Your task to perform on an android device: turn off notifications settings in the gmail app Image 0: 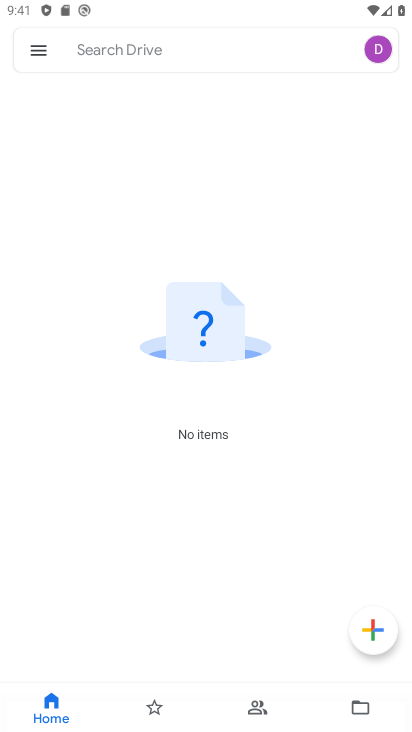
Step 0: press home button
Your task to perform on an android device: turn off notifications settings in the gmail app Image 1: 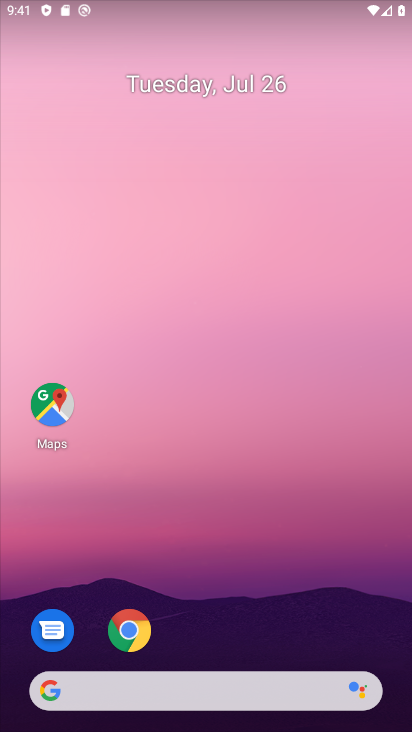
Step 1: drag from (341, 533) to (342, 87)
Your task to perform on an android device: turn off notifications settings in the gmail app Image 2: 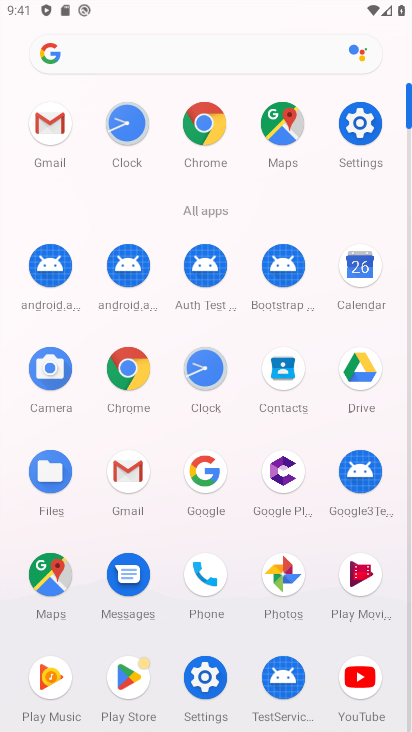
Step 2: click (125, 469)
Your task to perform on an android device: turn off notifications settings in the gmail app Image 3: 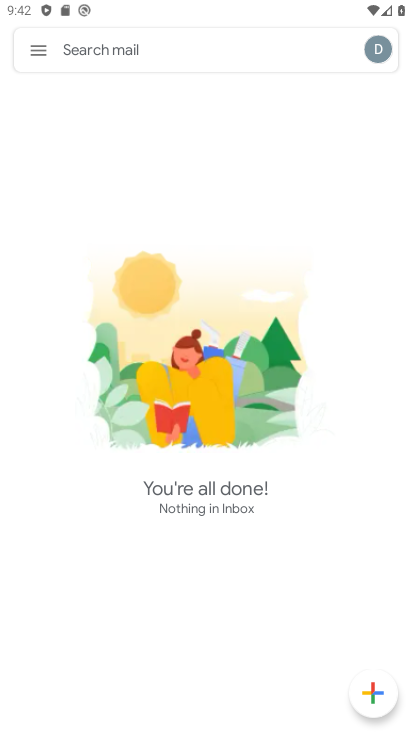
Step 3: click (38, 56)
Your task to perform on an android device: turn off notifications settings in the gmail app Image 4: 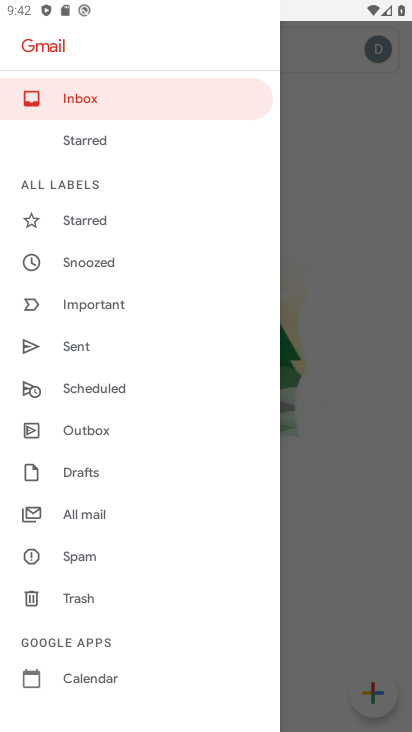
Step 4: drag from (133, 691) to (166, 374)
Your task to perform on an android device: turn off notifications settings in the gmail app Image 5: 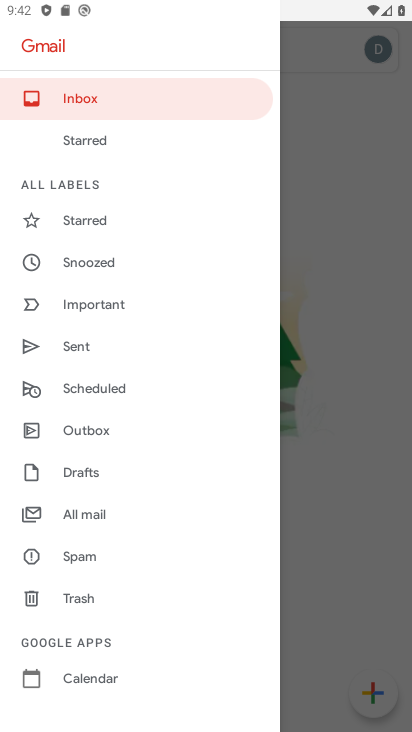
Step 5: drag from (186, 657) to (200, 361)
Your task to perform on an android device: turn off notifications settings in the gmail app Image 6: 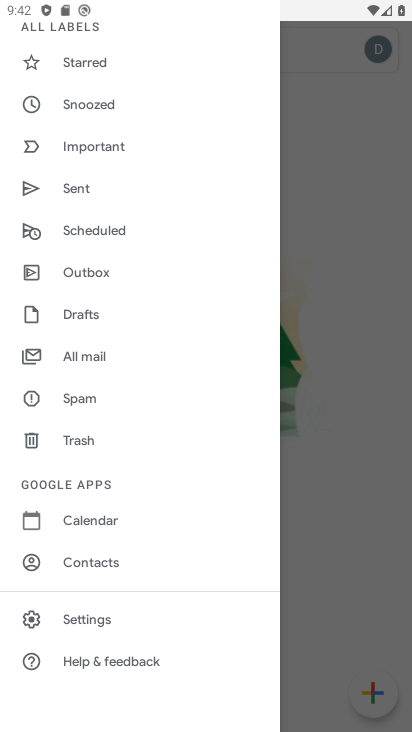
Step 6: click (81, 620)
Your task to perform on an android device: turn off notifications settings in the gmail app Image 7: 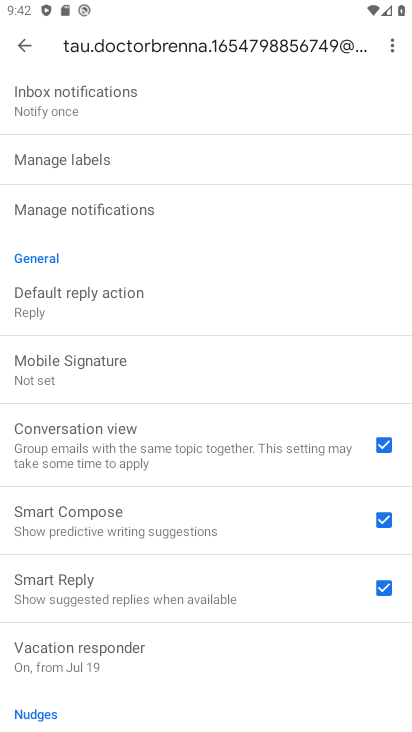
Step 7: click (83, 213)
Your task to perform on an android device: turn off notifications settings in the gmail app Image 8: 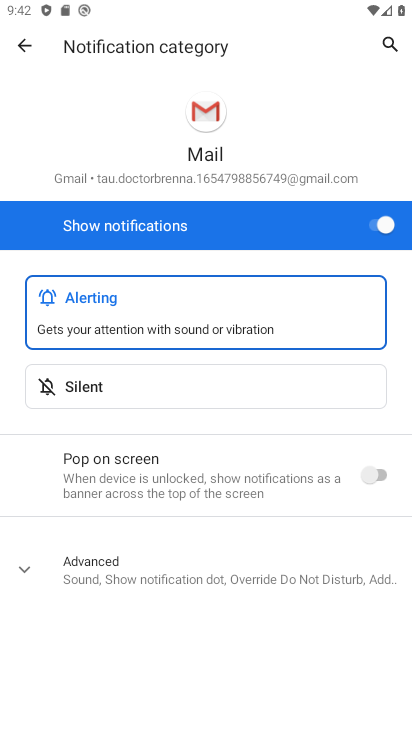
Step 8: click (21, 567)
Your task to perform on an android device: turn off notifications settings in the gmail app Image 9: 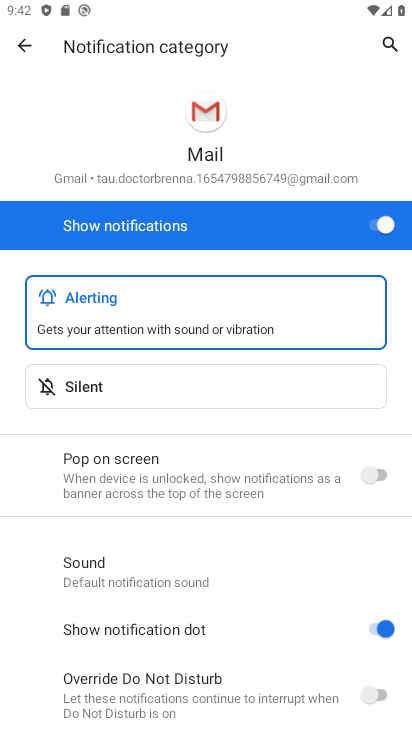
Step 9: click (371, 223)
Your task to perform on an android device: turn off notifications settings in the gmail app Image 10: 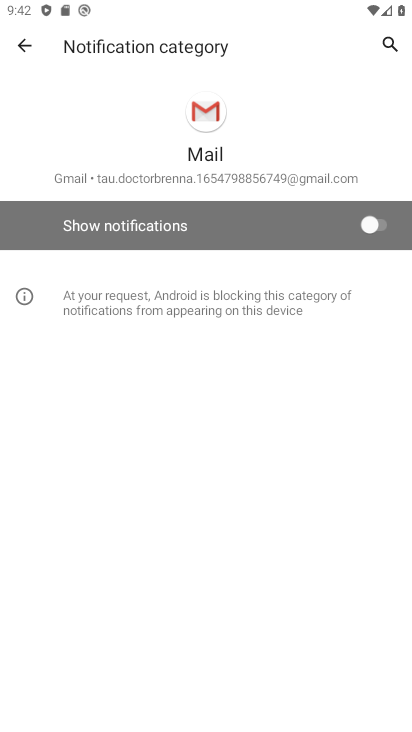
Step 10: task complete